Your task to perform on an android device: Open Google Chrome Image 0: 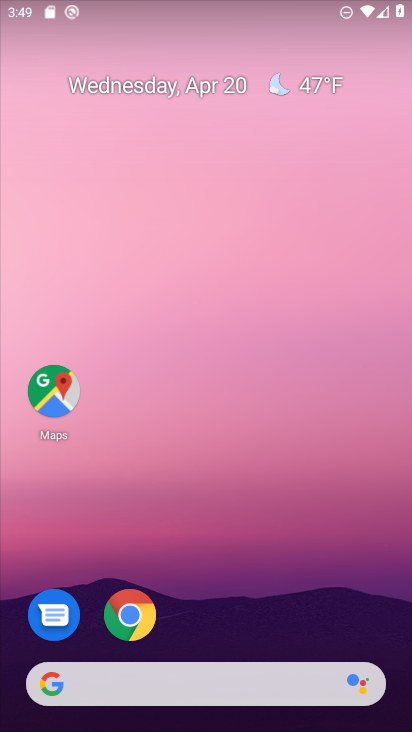
Step 0: drag from (282, 630) to (250, 380)
Your task to perform on an android device: Open Google Chrome Image 1: 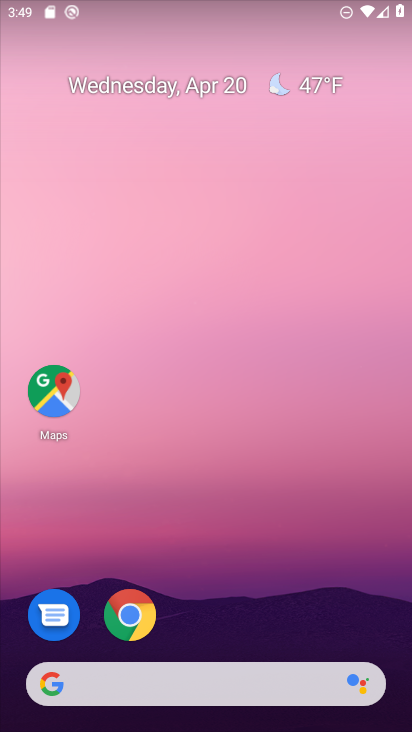
Step 1: click (131, 612)
Your task to perform on an android device: Open Google Chrome Image 2: 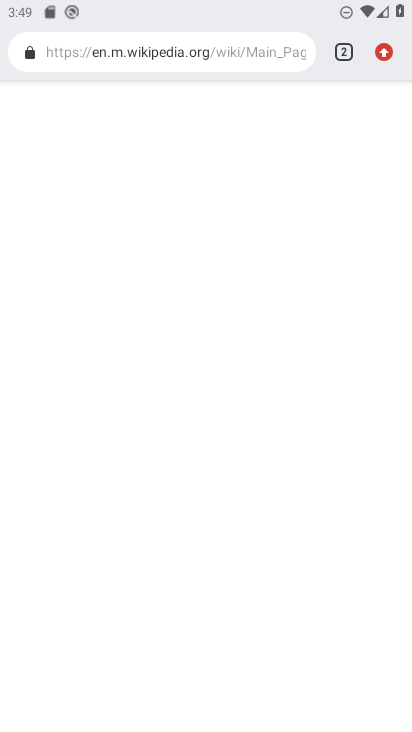
Step 2: task complete